Your task to perform on an android device: Play the last video I watched on Youtube Image 0: 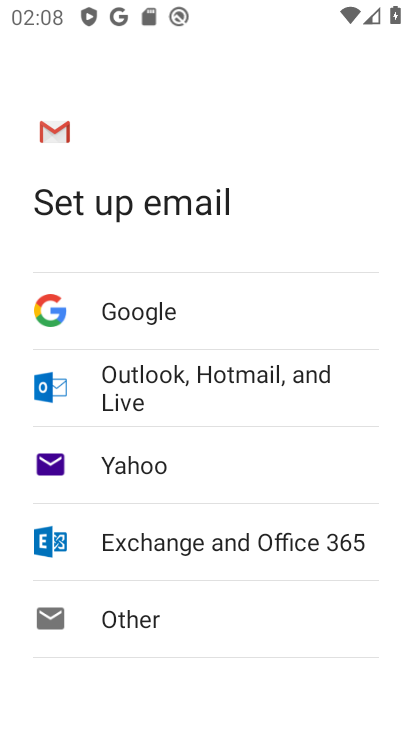
Step 0: press home button
Your task to perform on an android device: Play the last video I watched on Youtube Image 1: 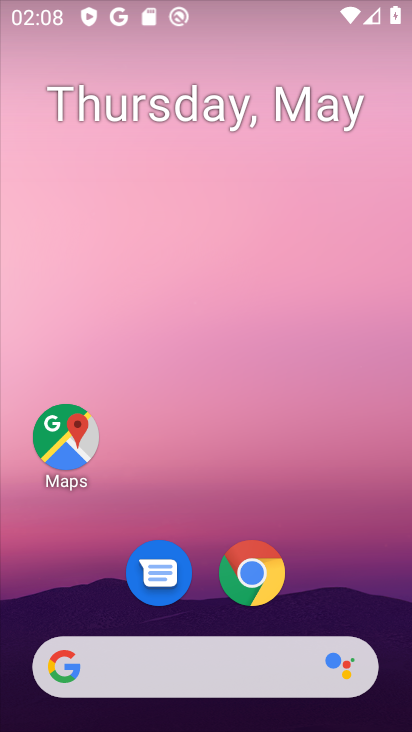
Step 1: drag from (297, 615) to (307, 328)
Your task to perform on an android device: Play the last video I watched on Youtube Image 2: 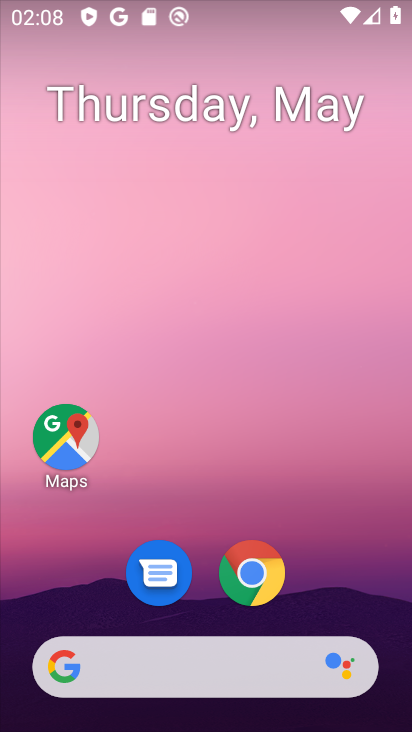
Step 2: drag from (238, 632) to (235, 157)
Your task to perform on an android device: Play the last video I watched on Youtube Image 3: 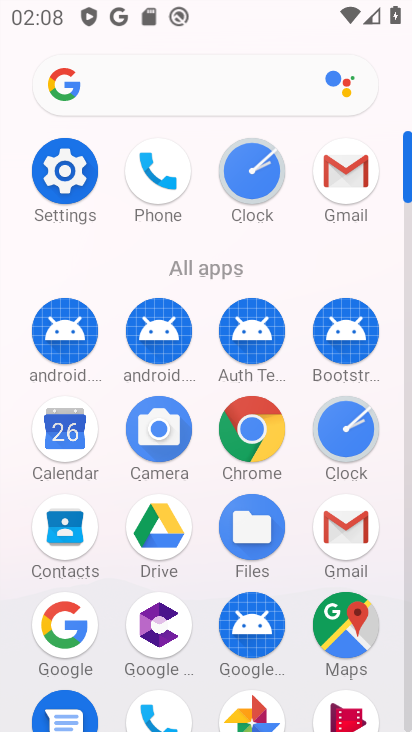
Step 3: drag from (287, 664) to (272, 265)
Your task to perform on an android device: Play the last video I watched on Youtube Image 4: 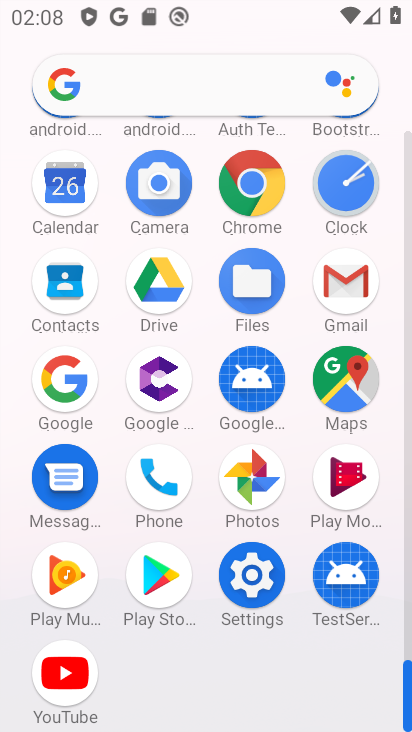
Step 4: click (64, 679)
Your task to perform on an android device: Play the last video I watched on Youtube Image 5: 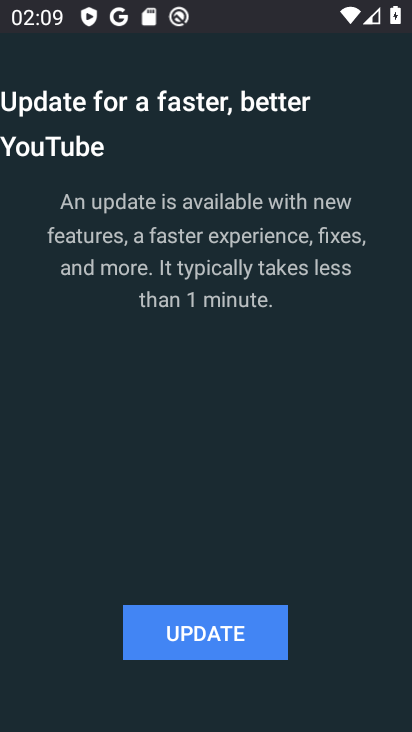
Step 5: task complete